Your task to perform on an android device: manage bookmarks in the chrome app Image 0: 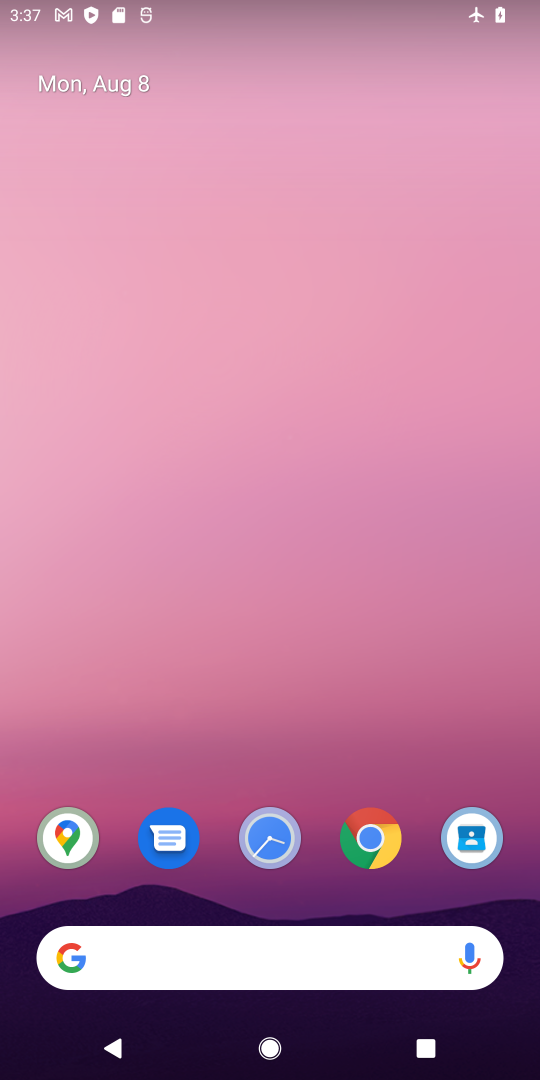
Step 0: click (371, 839)
Your task to perform on an android device: manage bookmarks in the chrome app Image 1: 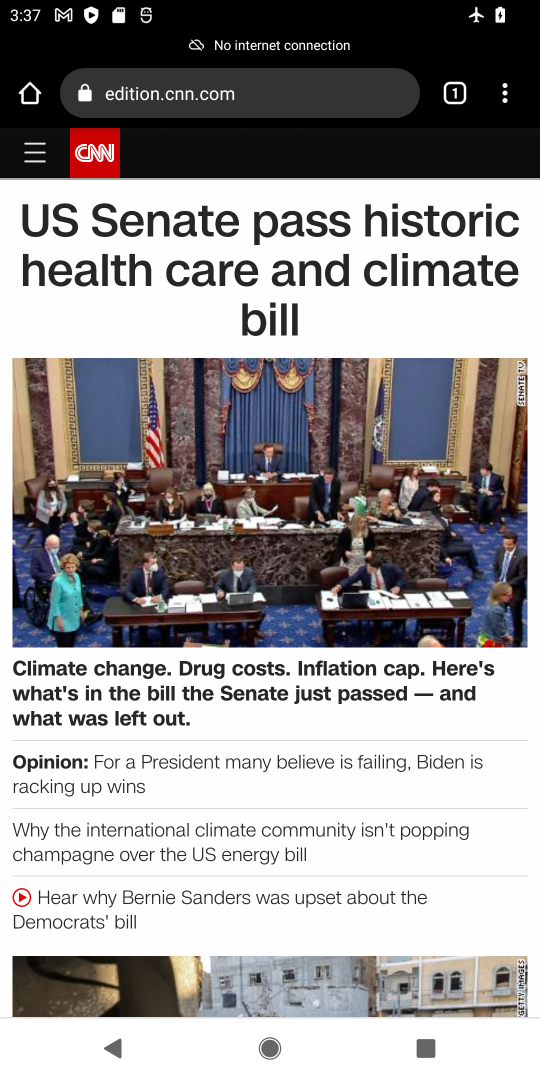
Step 1: click (511, 94)
Your task to perform on an android device: manage bookmarks in the chrome app Image 2: 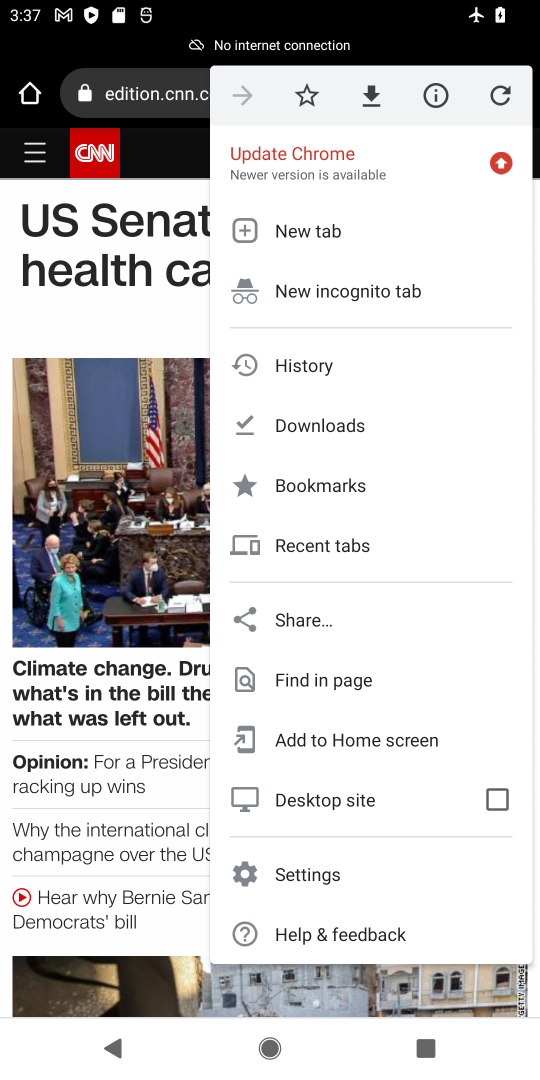
Step 2: click (326, 492)
Your task to perform on an android device: manage bookmarks in the chrome app Image 3: 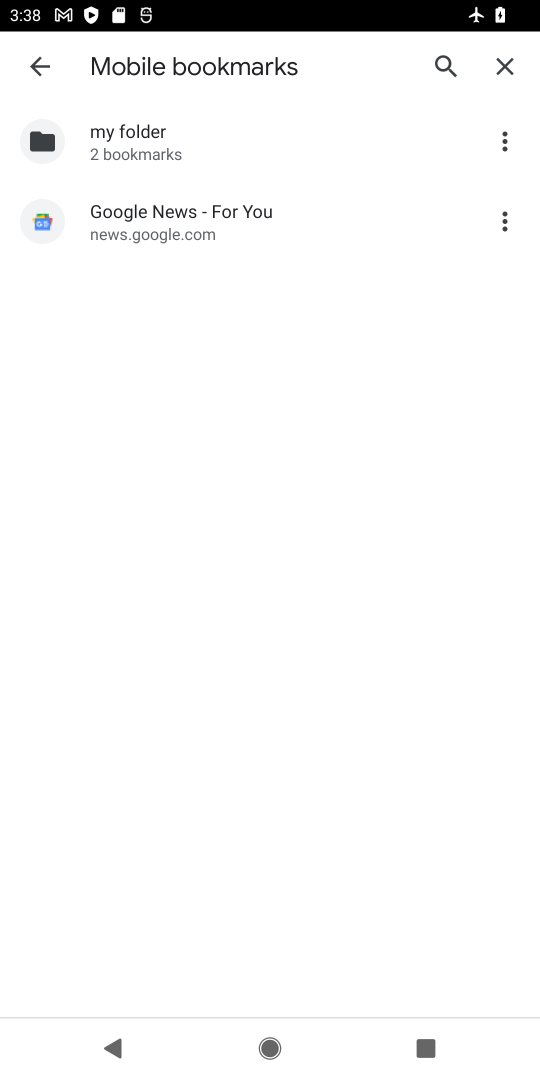
Step 3: click (507, 128)
Your task to perform on an android device: manage bookmarks in the chrome app Image 4: 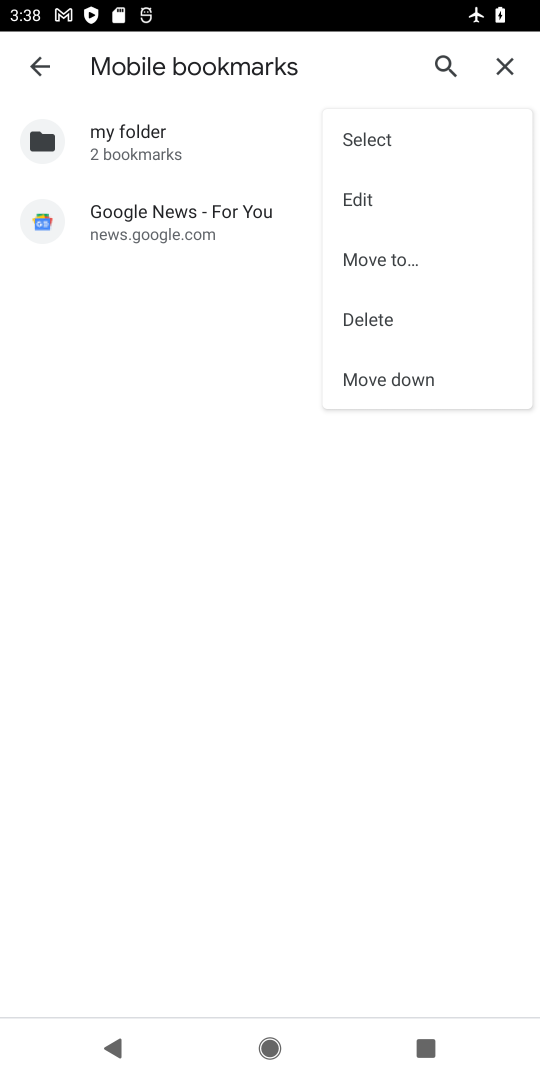
Step 4: click (373, 315)
Your task to perform on an android device: manage bookmarks in the chrome app Image 5: 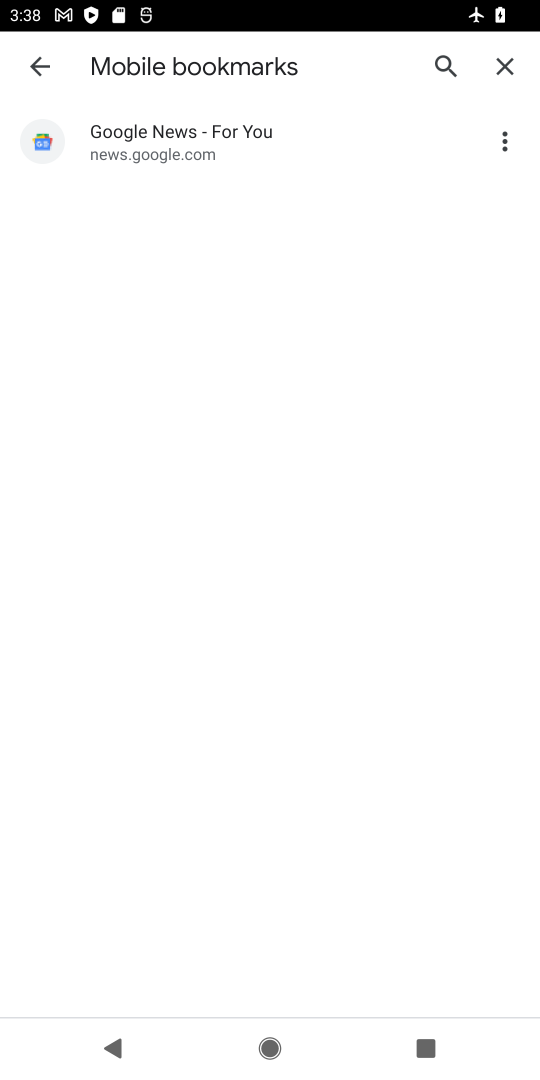
Step 5: task complete